Your task to perform on an android device: When is my next meeting? Image 0: 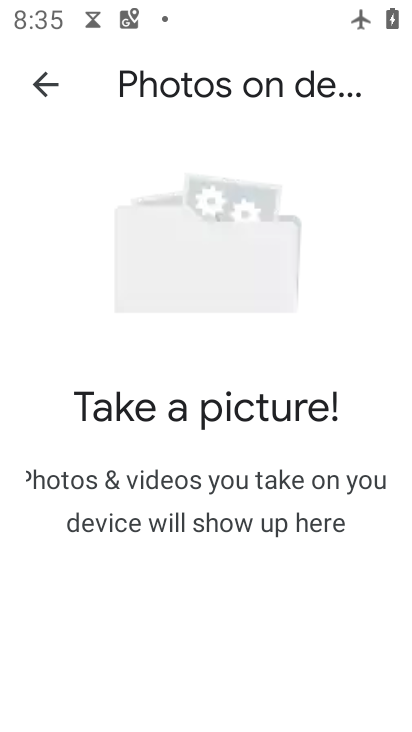
Step 0: press home button
Your task to perform on an android device: When is my next meeting? Image 1: 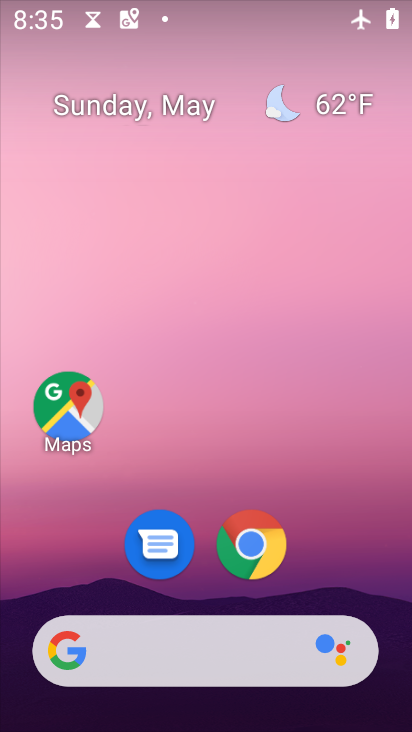
Step 1: drag from (309, 584) to (257, 29)
Your task to perform on an android device: When is my next meeting? Image 2: 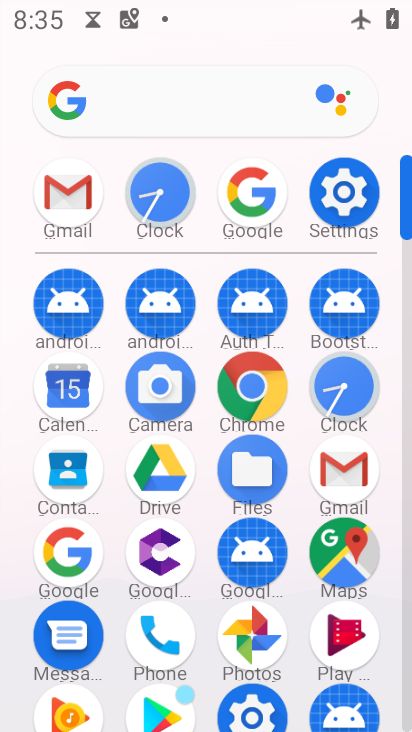
Step 2: click (62, 385)
Your task to perform on an android device: When is my next meeting? Image 3: 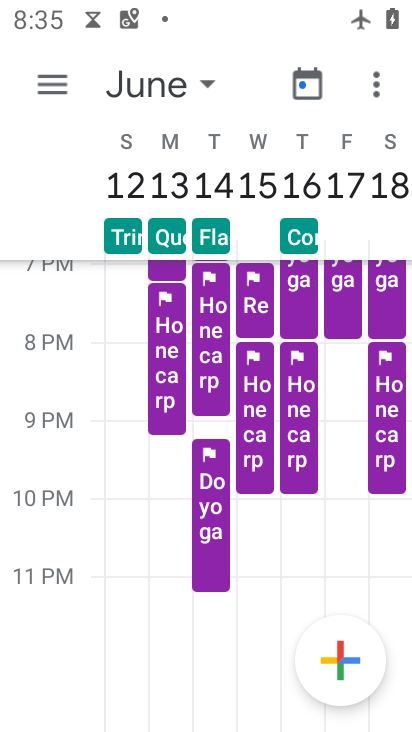
Step 3: click (52, 93)
Your task to perform on an android device: When is my next meeting? Image 4: 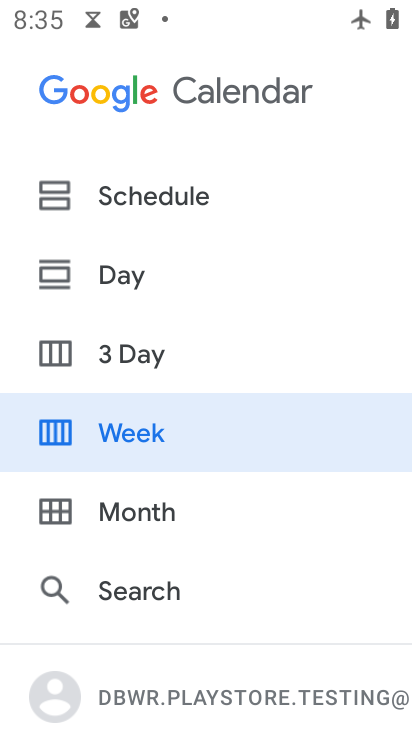
Step 4: click (138, 202)
Your task to perform on an android device: When is my next meeting? Image 5: 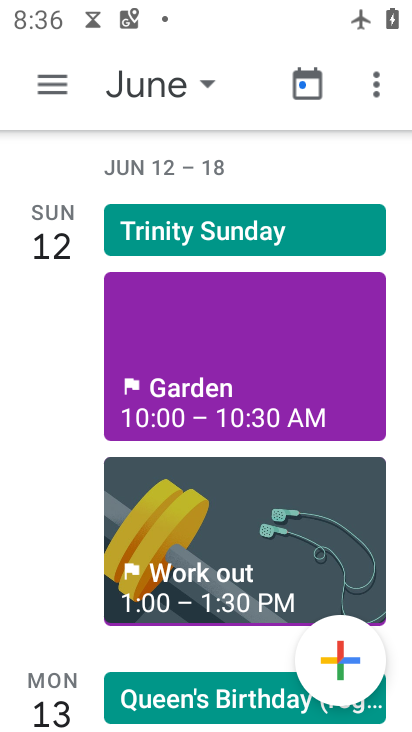
Step 5: click (158, 89)
Your task to perform on an android device: When is my next meeting? Image 6: 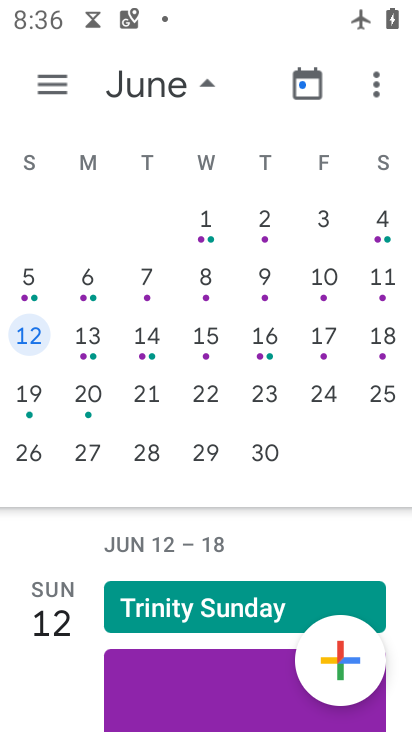
Step 6: drag from (72, 371) to (403, 356)
Your task to perform on an android device: When is my next meeting? Image 7: 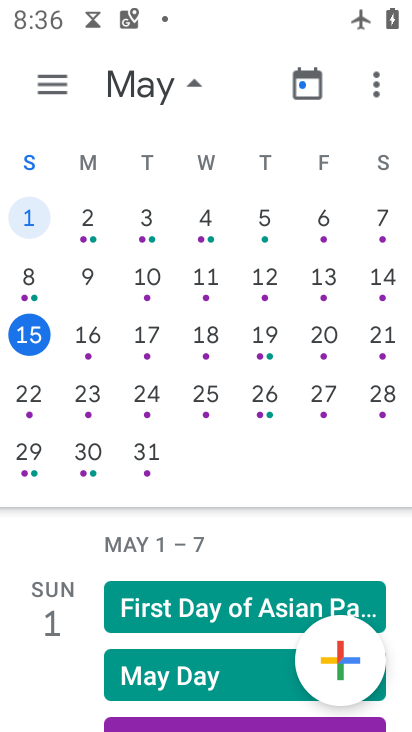
Step 7: click (31, 334)
Your task to perform on an android device: When is my next meeting? Image 8: 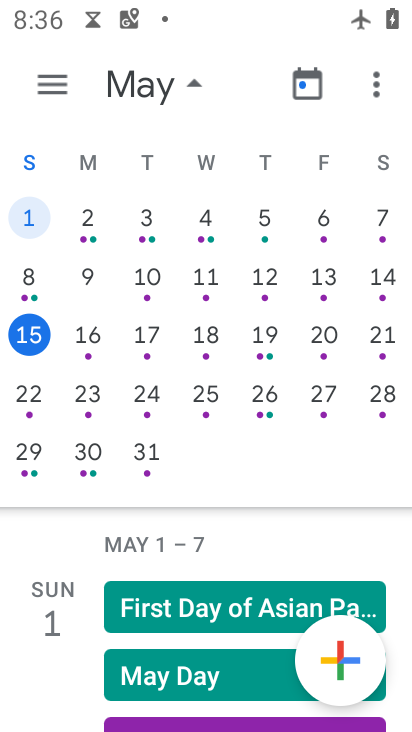
Step 8: click (36, 343)
Your task to perform on an android device: When is my next meeting? Image 9: 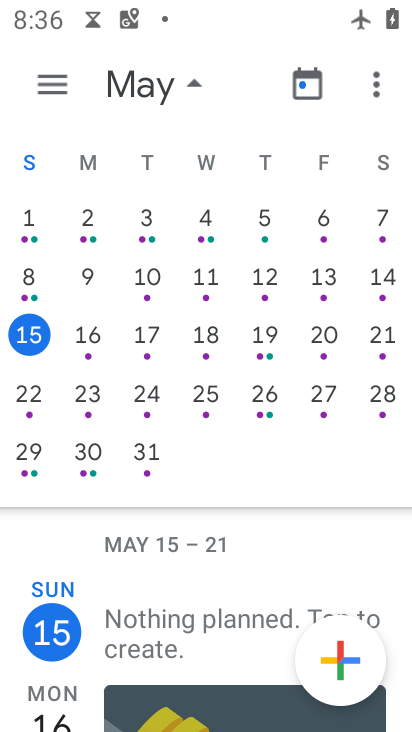
Step 9: task complete